Your task to perform on an android device: Go to Google maps Image 0: 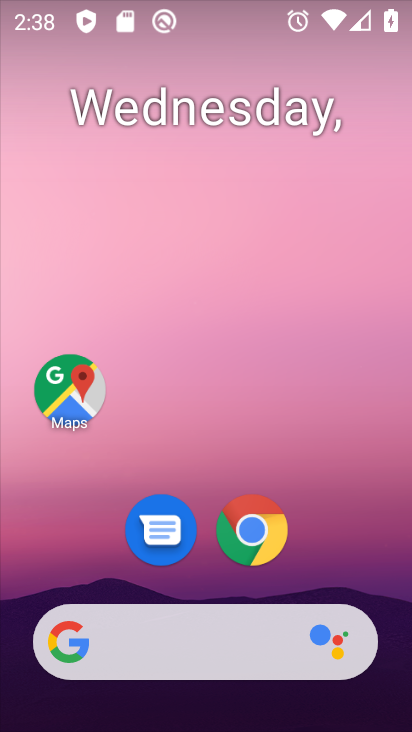
Step 0: click (75, 388)
Your task to perform on an android device: Go to Google maps Image 1: 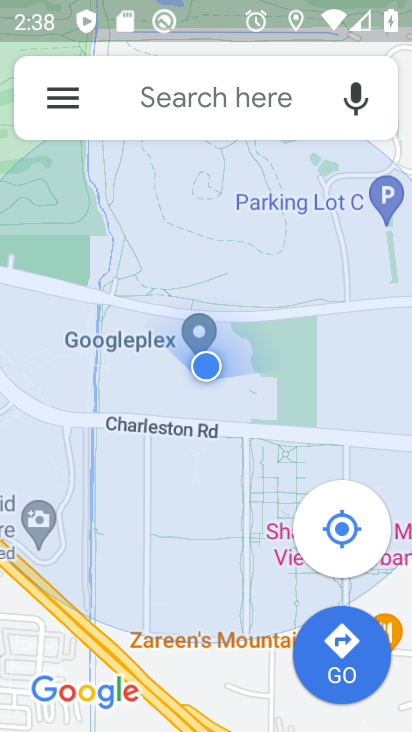
Step 1: task complete